Your task to perform on an android device: Open eBay Image 0: 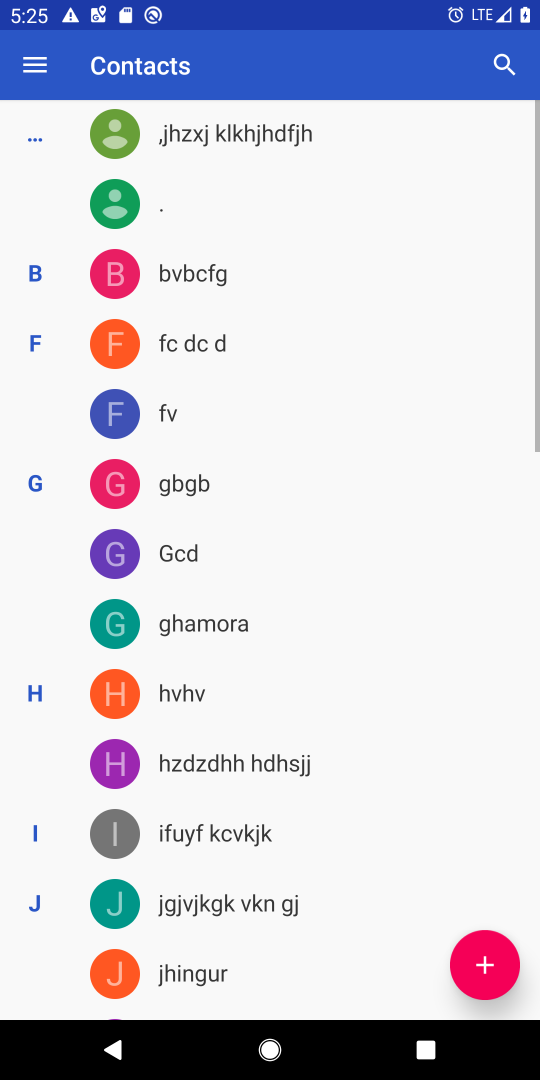
Step 0: press back button
Your task to perform on an android device: Open eBay Image 1: 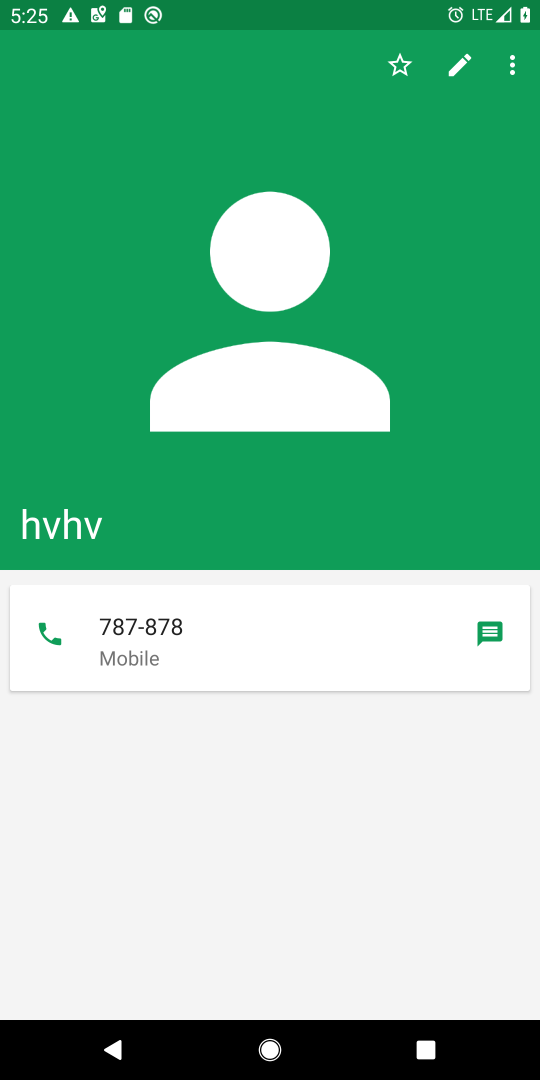
Step 1: press home button
Your task to perform on an android device: Open eBay Image 2: 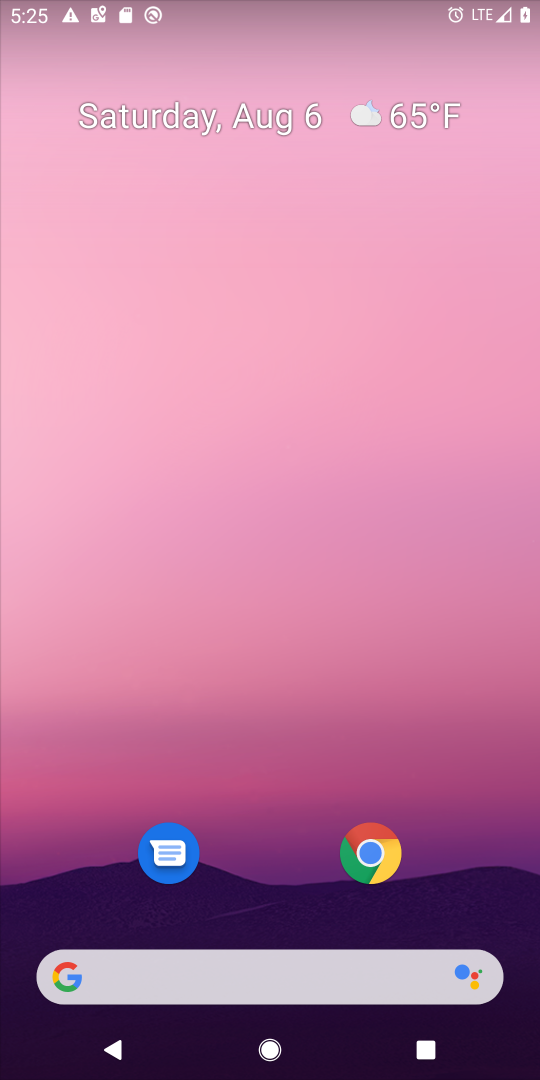
Step 2: click (383, 866)
Your task to perform on an android device: Open eBay Image 3: 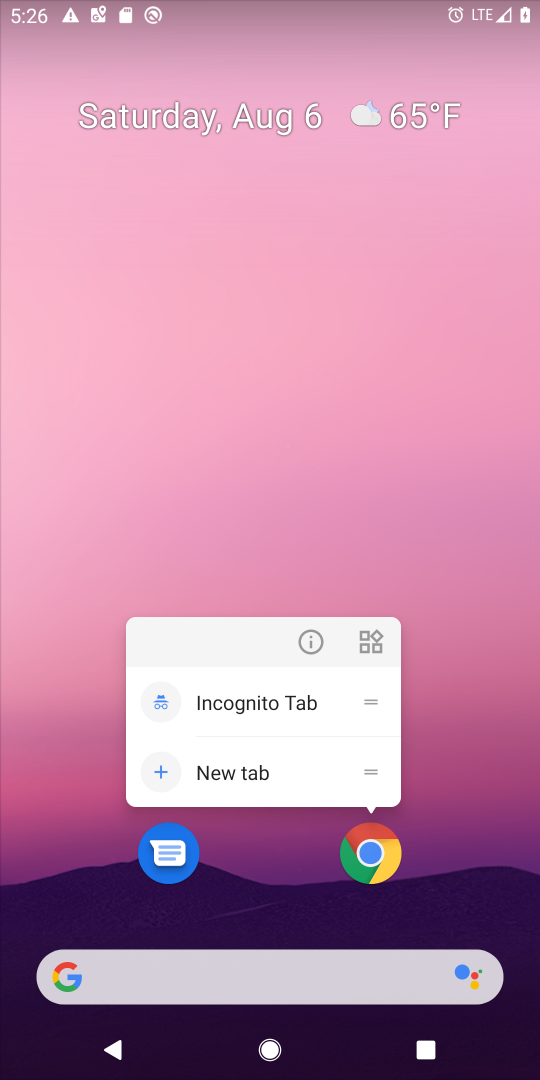
Step 3: click (365, 851)
Your task to perform on an android device: Open eBay Image 4: 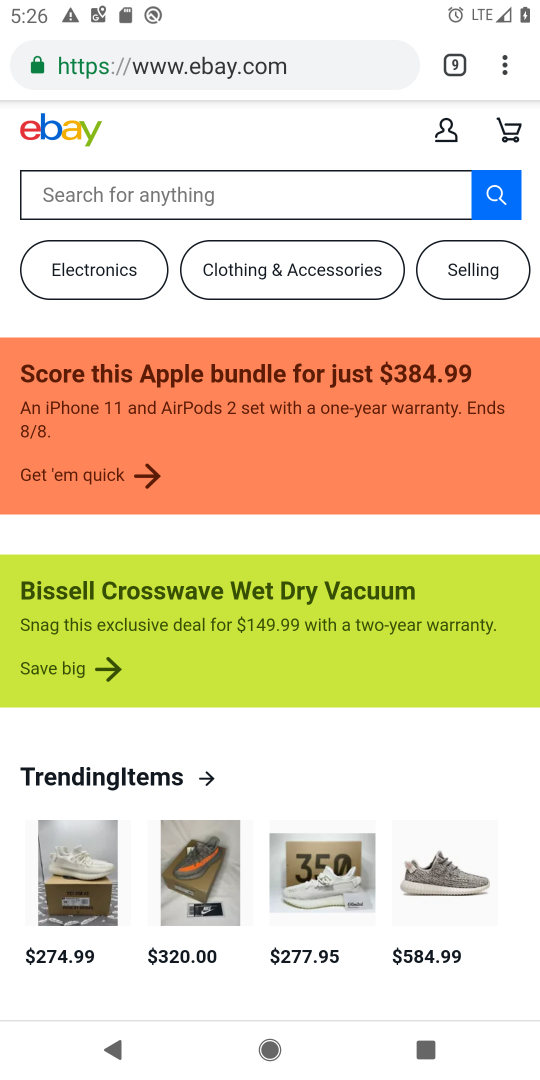
Step 4: task complete